Your task to perform on an android device: Go to Amazon Image 0: 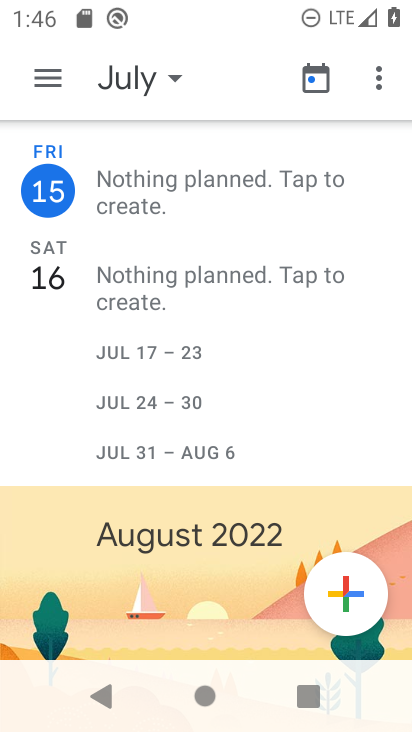
Step 0: press home button
Your task to perform on an android device: Go to Amazon Image 1: 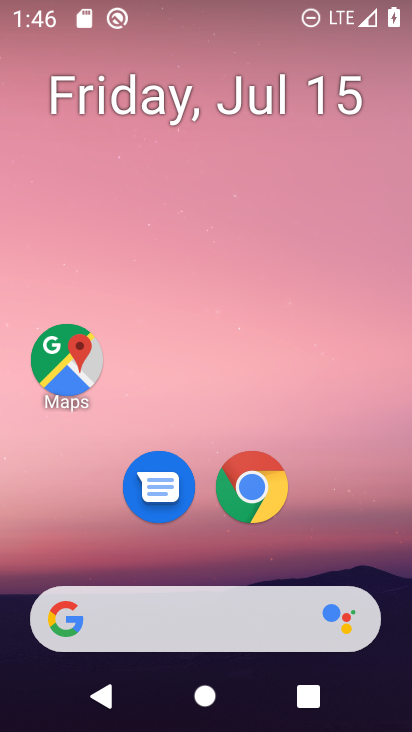
Step 1: drag from (175, 603) to (181, 179)
Your task to perform on an android device: Go to Amazon Image 2: 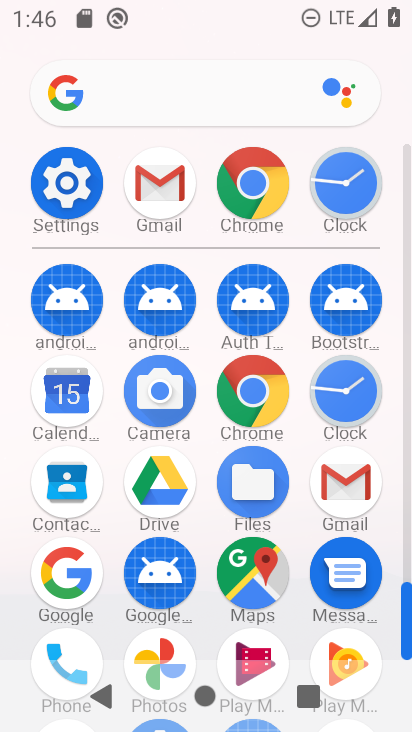
Step 2: click (265, 221)
Your task to perform on an android device: Go to Amazon Image 3: 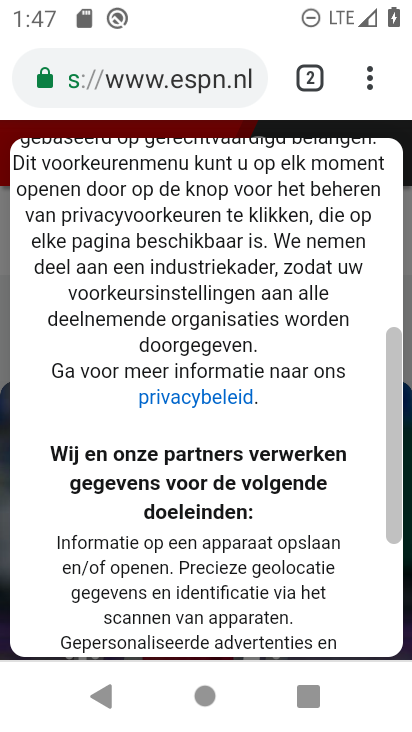
Step 3: click (212, 85)
Your task to perform on an android device: Go to Amazon Image 4: 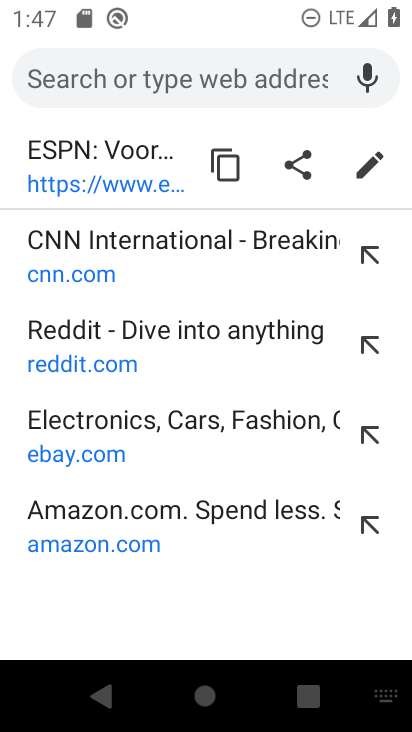
Step 4: type "amazon"
Your task to perform on an android device: Go to Amazon Image 5: 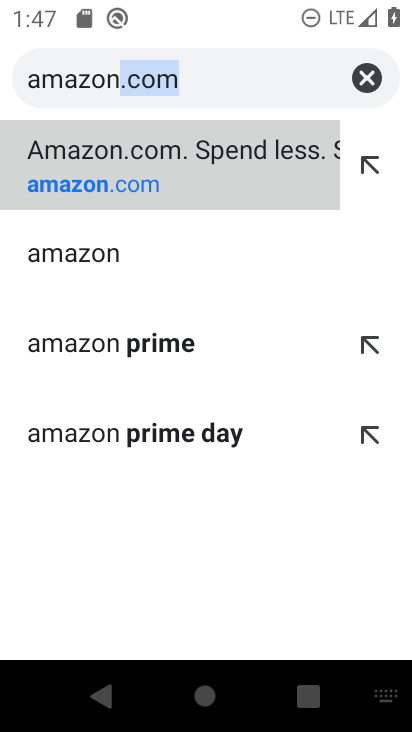
Step 5: click (174, 169)
Your task to perform on an android device: Go to Amazon Image 6: 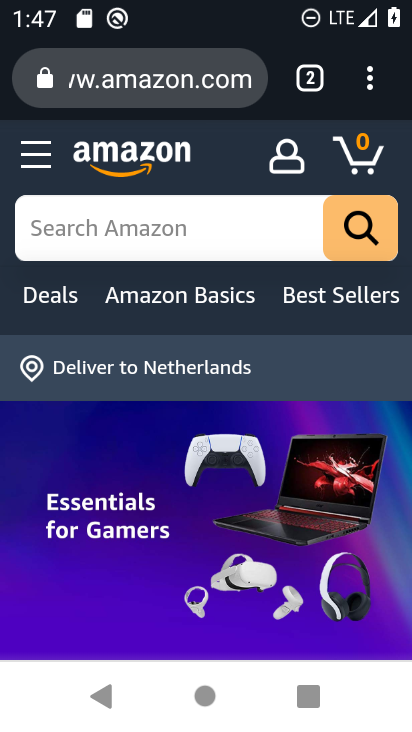
Step 6: task complete